Your task to perform on an android device: Search for flights from Sydney to Buenos aires Image 0: 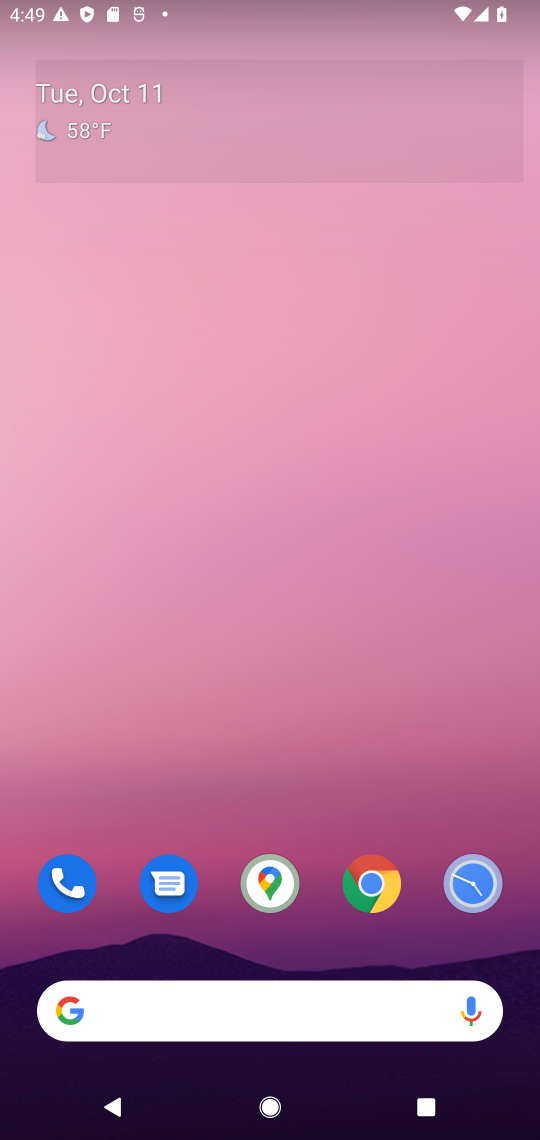
Step 0: drag from (213, 959) to (308, 232)
Your task to perform on an android device: Search for flights from Sydney to Buenos aires Image 1: 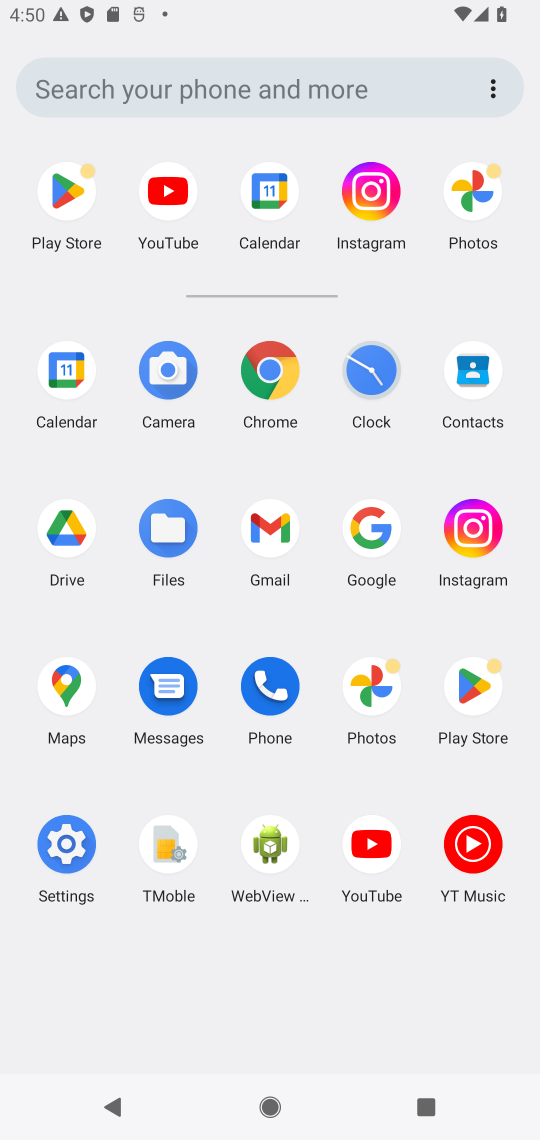
Step 1: click (274, 370)
Your task to perform on an android device: Search for flights from Sydney to Buenos aires Image 2: 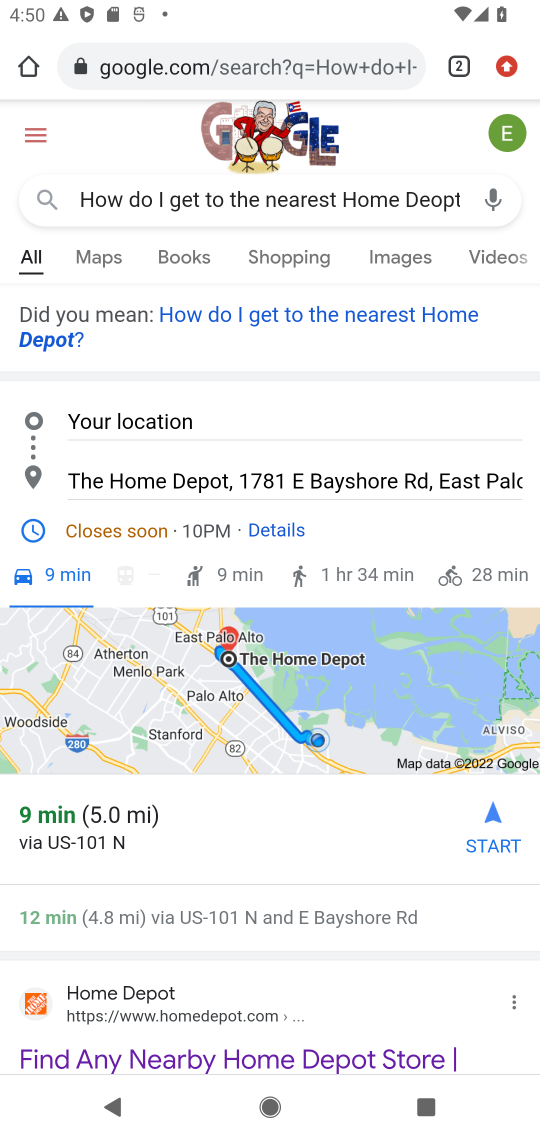
Step 2: click (228, 58)
Your task to perform on an android device: Search for flights from Sydney to Buenos aires Image 3: 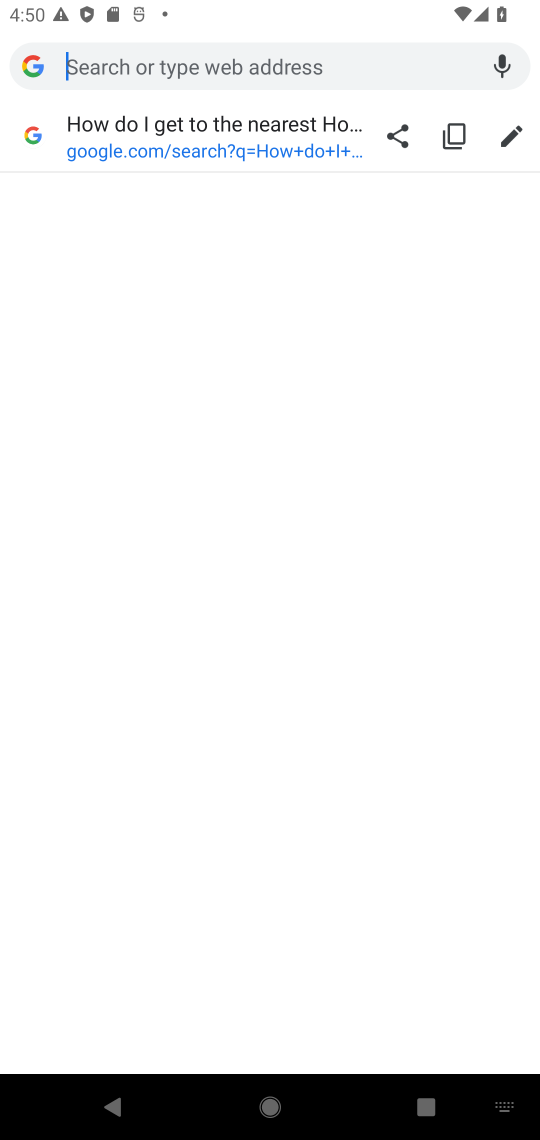
Step 3: type "flights from  Sydney to Buenos aires"
Your task to perform on an android device: Search for flights from Sydney to Buenos aires Image 4: 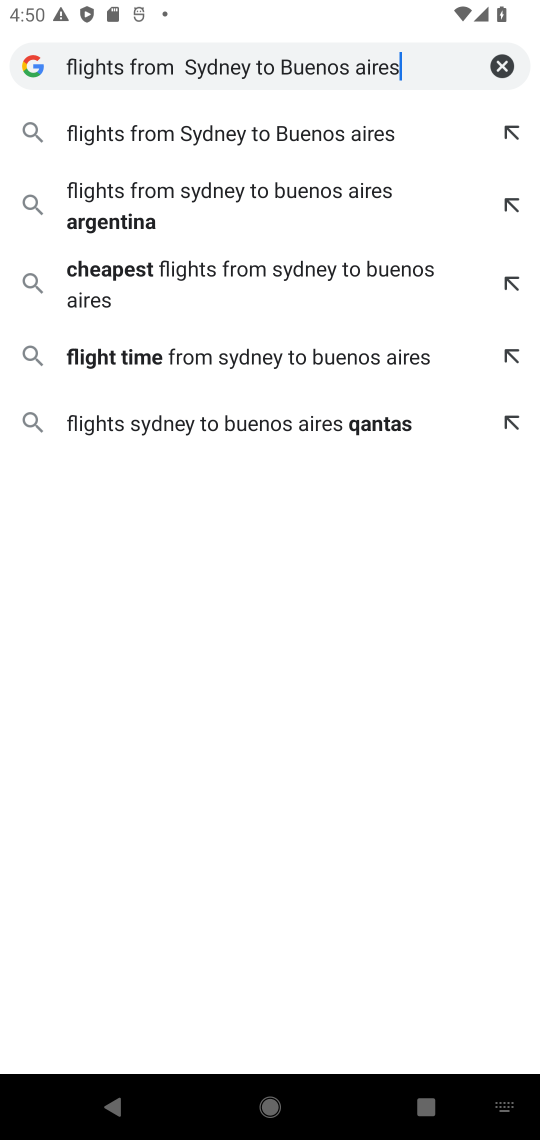
Step 4: press enter
Your task to perform on an android device: Search for flights from Sydney to Buenos aires Image 5: 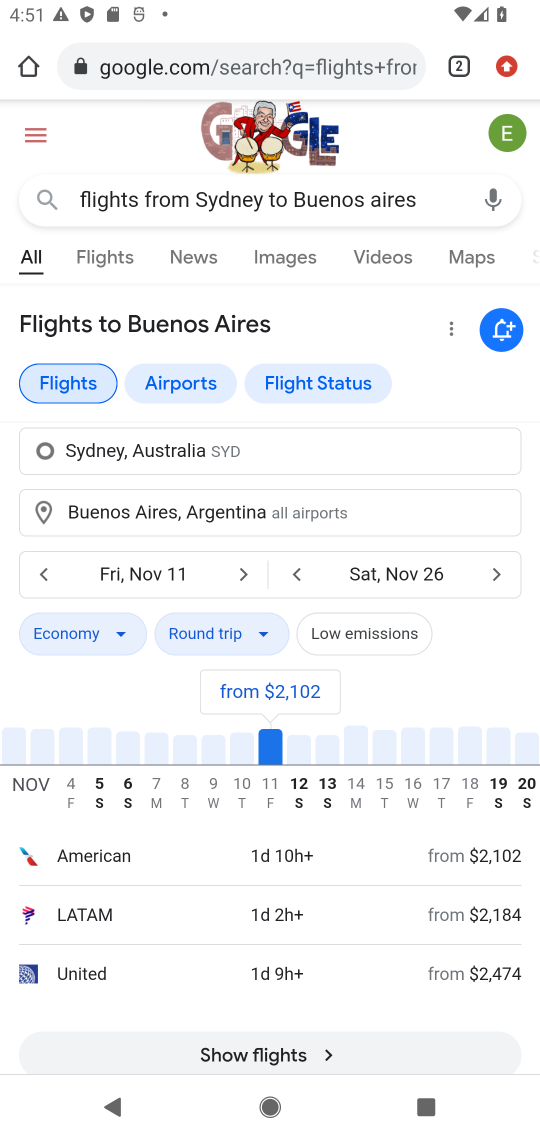
Step 5: task complete